Your task to perform on an android device: find snoozed emails in the gmail app Image 0: 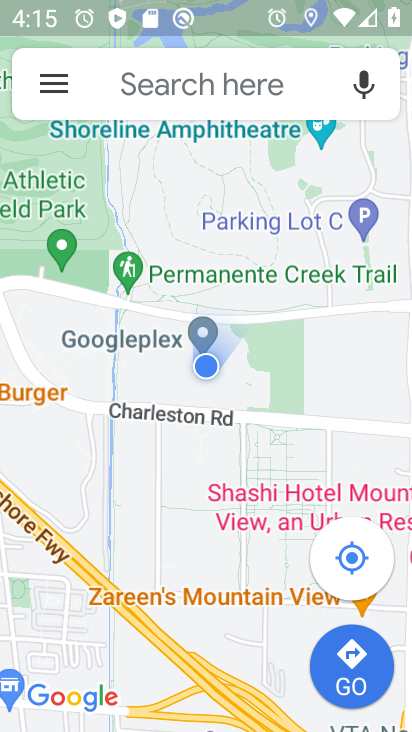
Step 0: press home button
Your task to perform on an android device: find snoozed emails in the gmail app Image 1: 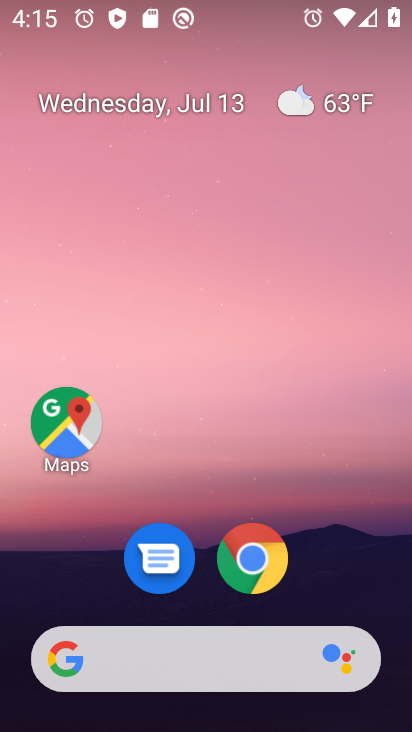
Step 1: drag from (136, 599) to (160, 197)
Your task to perform on an android device: find snoozed emails in the gmail app Image 2: 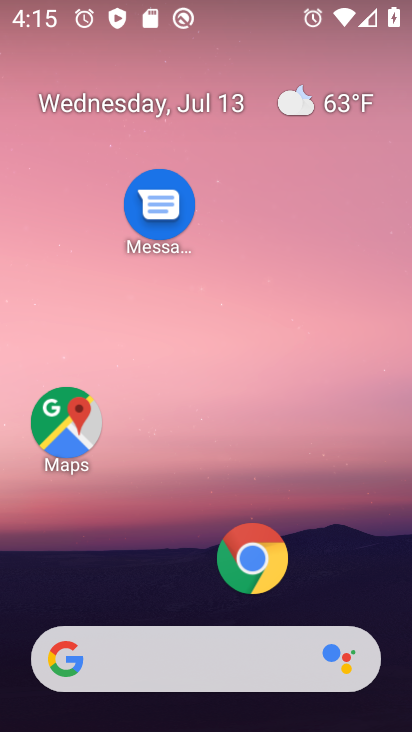
Step 2: drag from (177, 632) to (214, 149)
Your task to perform on an android device: find snoozed emails in the gmail app Image 3: 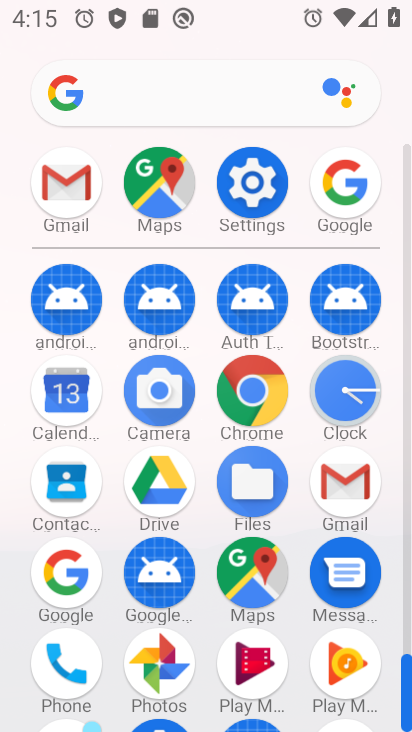
Step 3: click (73, 193)
Your task to perform on an android device: find snoozed emails in the gmail app Image 4: 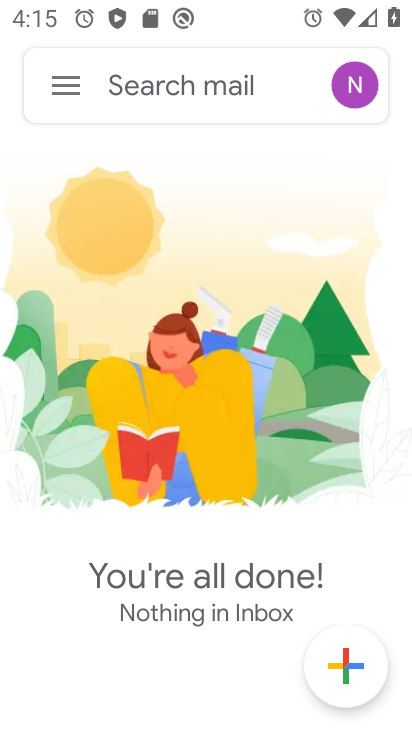
Step 4: click (62, 78)
Your task to perform on an android device: find snoozed emails in the gmail app Image 5: 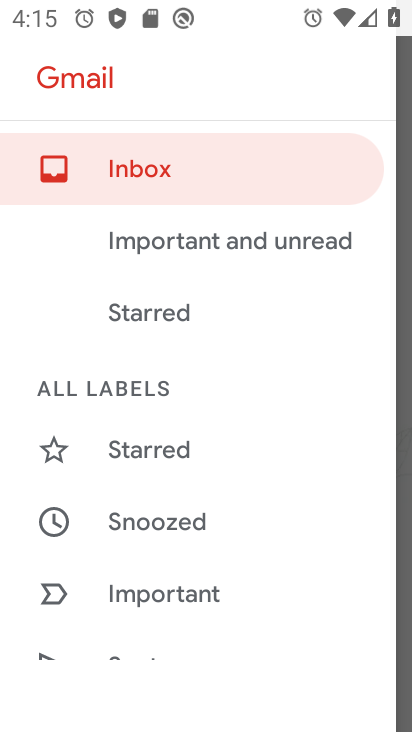
Step 5: click (139, 520)
Your task to perform on an android device: find snoozed emails in the gmail app Image 6: 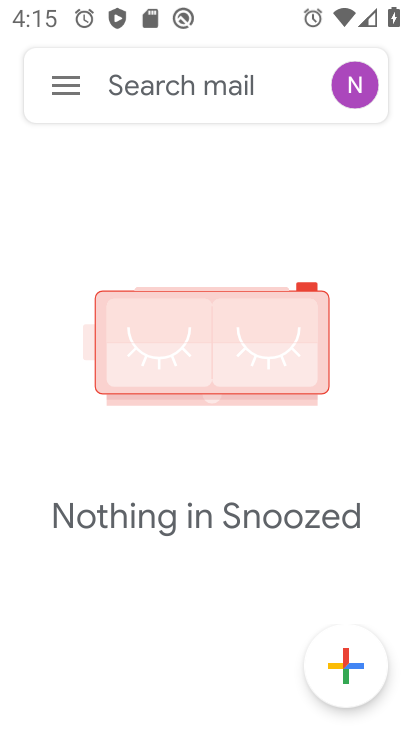
Step 6: task complete